Your task to perform on an android device: uninstall "Adobe Express: Graphic Design" Image 0: 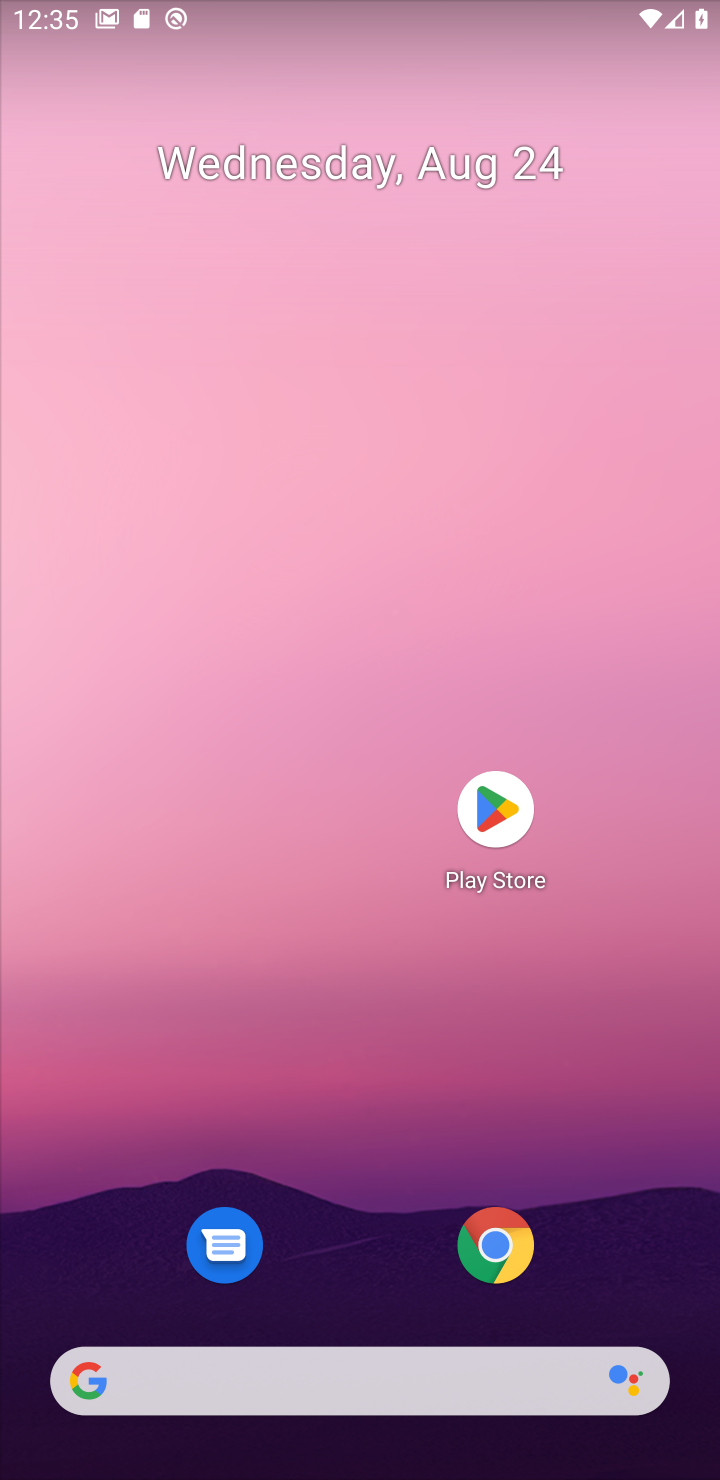
Step 0: click (496, 812)
Your task to perform on an android device: uninstall "Adobe Express: Graphic Design" Image 1: 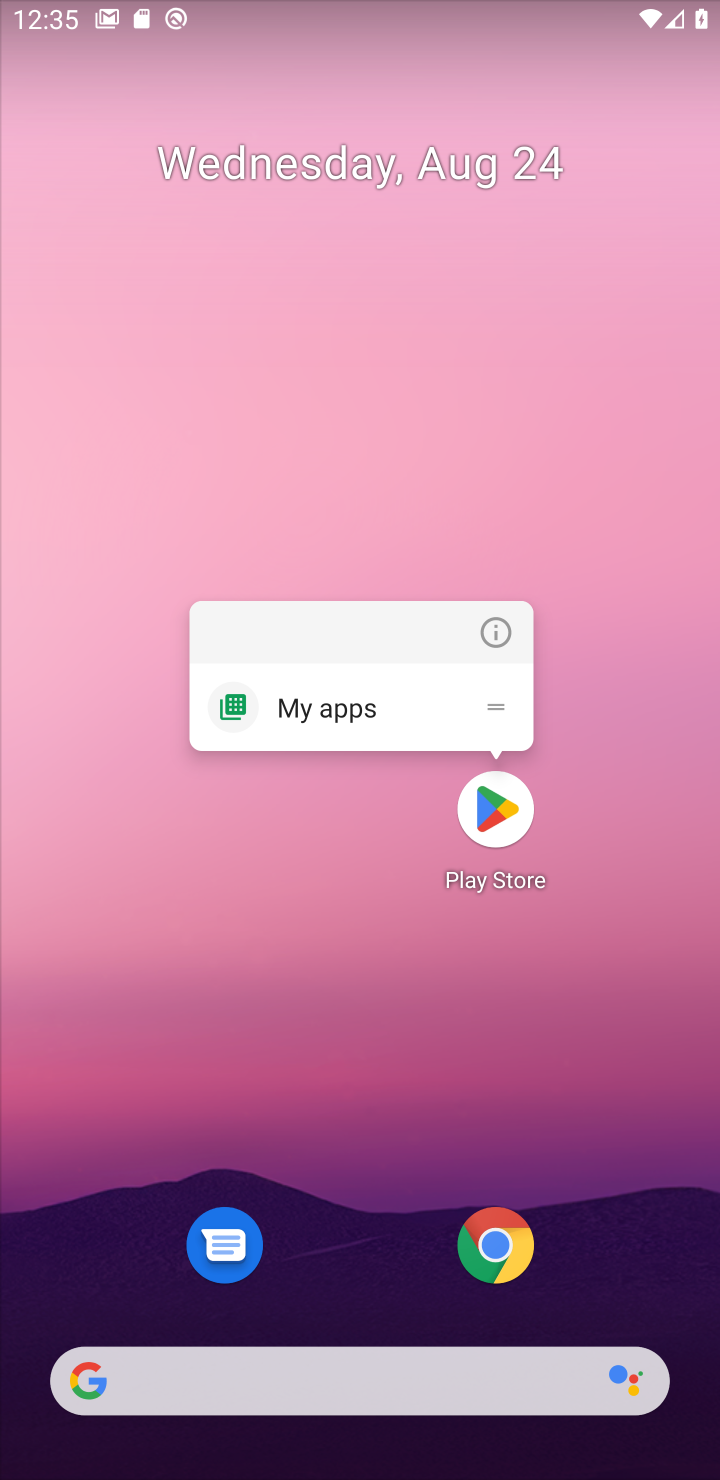
Step 1: click (496, 805)
Your task to perform on an android device: uninstall "Adobe Express: Graphic Design" Image 2: 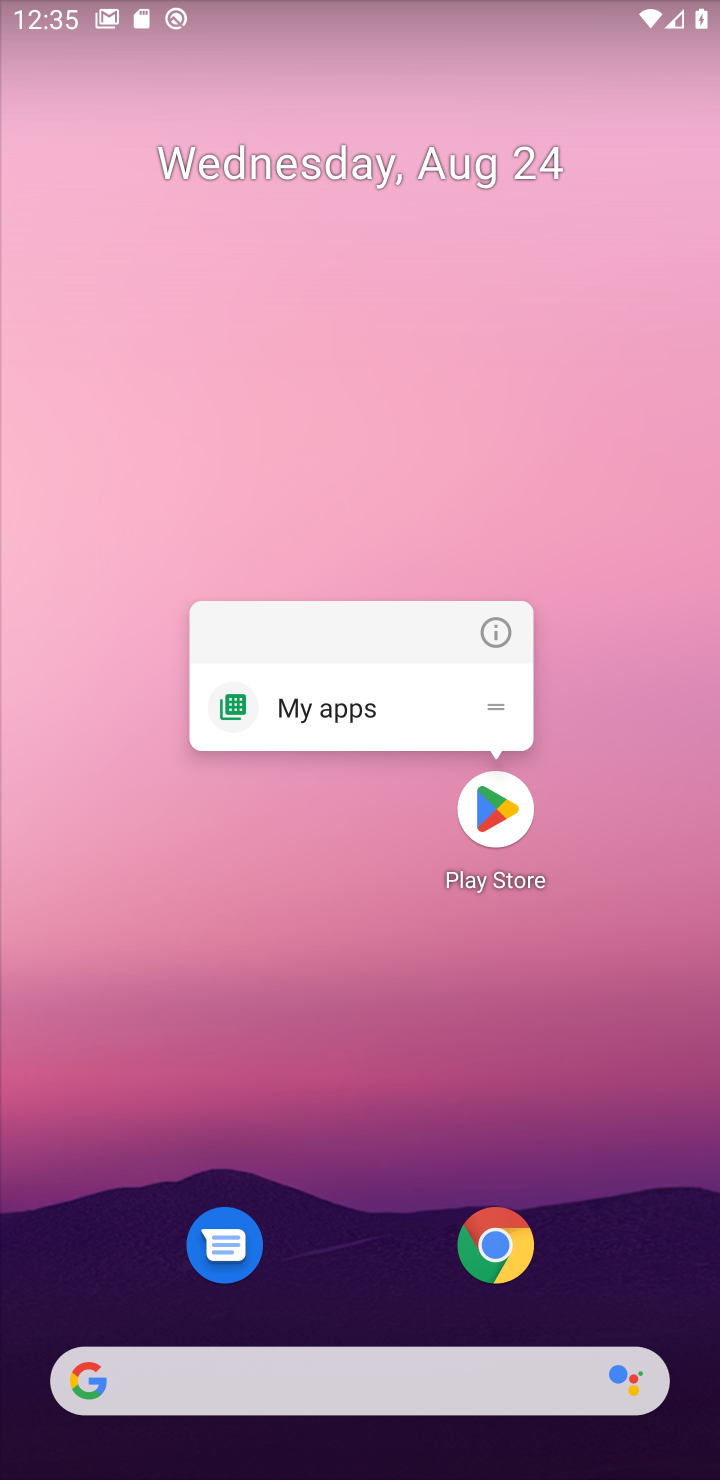
Step 2: click (496, 803)
Your task to perform on an android device: uninstall "Adobe Express: Graphic Design" Image 3: 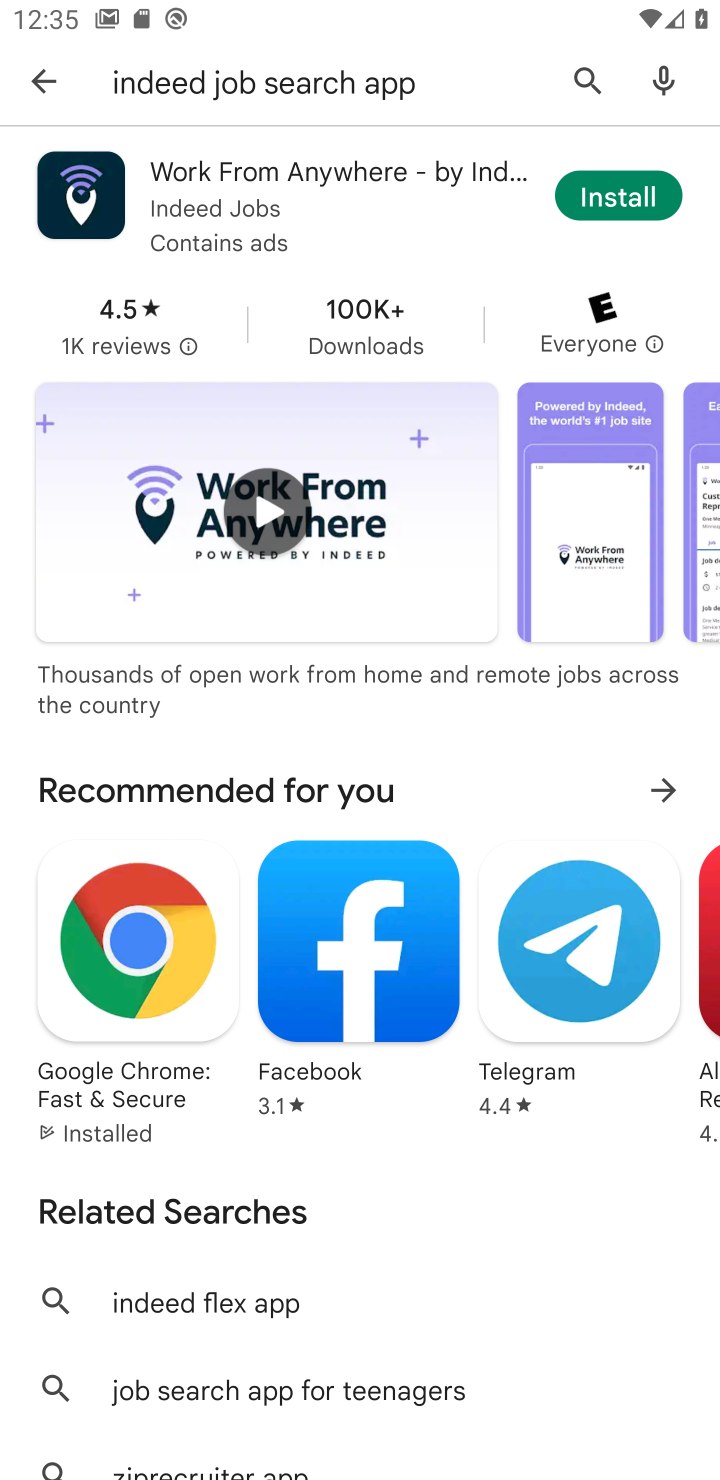
Step 3: click (576, 71)
Your task to perform on an android device: uninstall "Adobe Express: Graphic Design" Image 4: 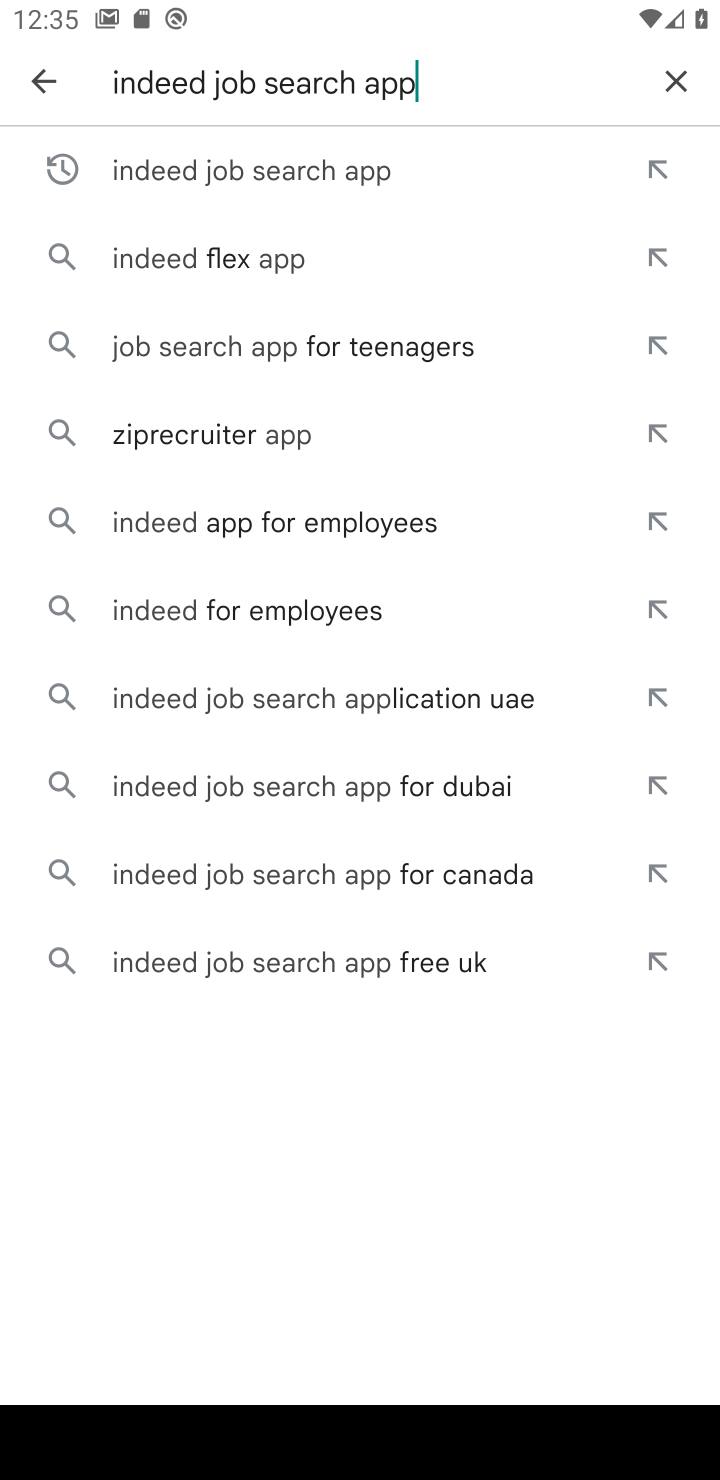
Step 4: click (675, 72)
Your task to perform on an android device: uninstall "Adobe Express: Graphic Design" Image 5: 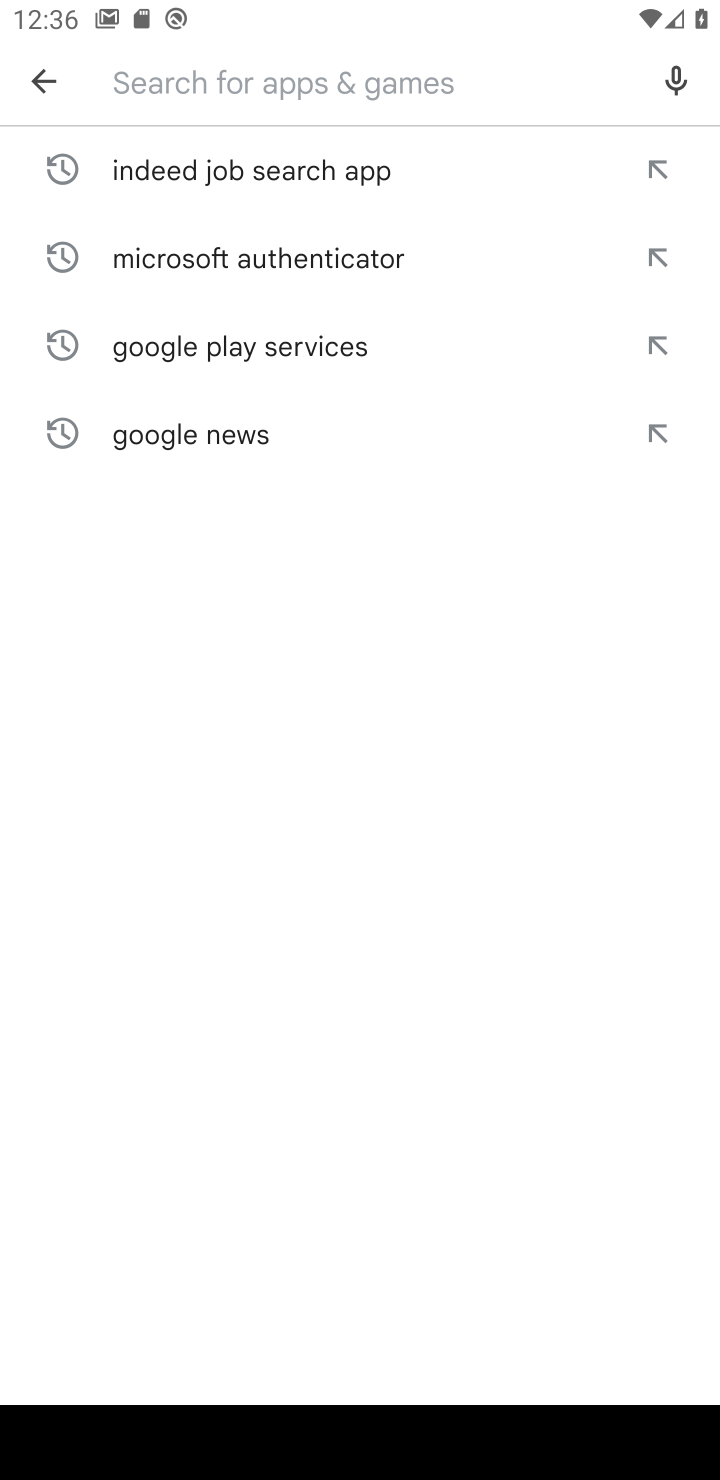
Step 5: type "Adobe Express: Graphic Design"
Your task to perform on an android device: uninstall "Adobe Express: Graphic Design" Image 6: 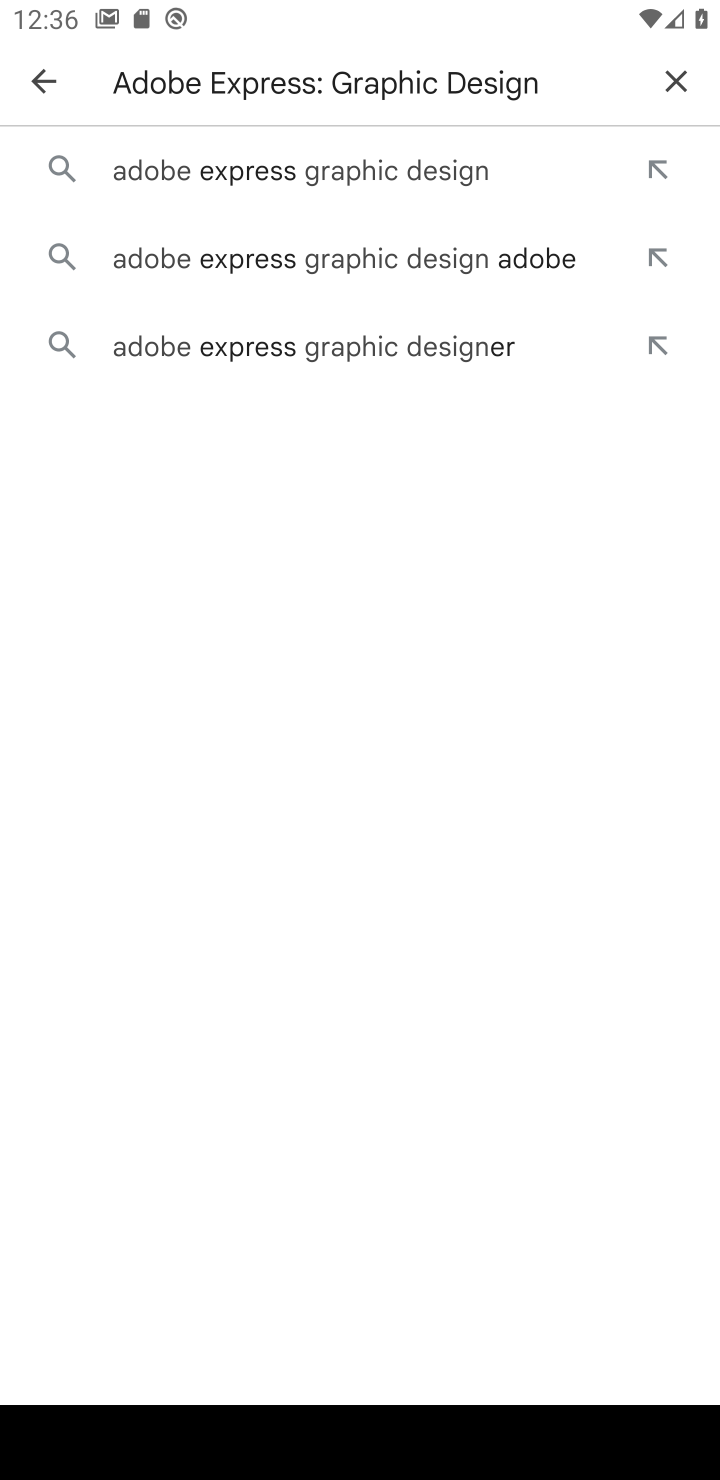
Step 6: click (419, 176)
Your task to perform on an android device: uninstall "Adobe Express: Graphic Design" Image 7: 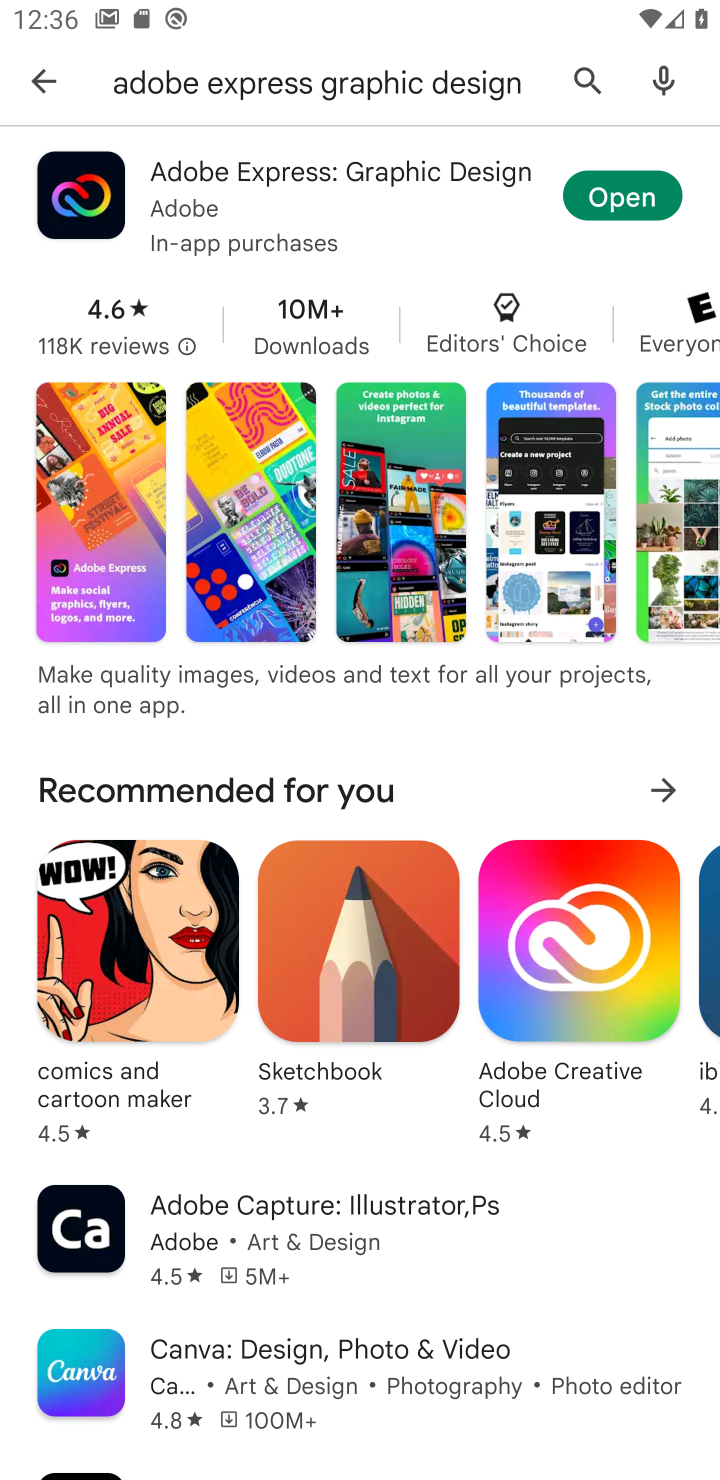
Step 7: click (189, 169)
Your task to perform on an android device: uninstall "Adobe Express: Graphic Design" Image 8: 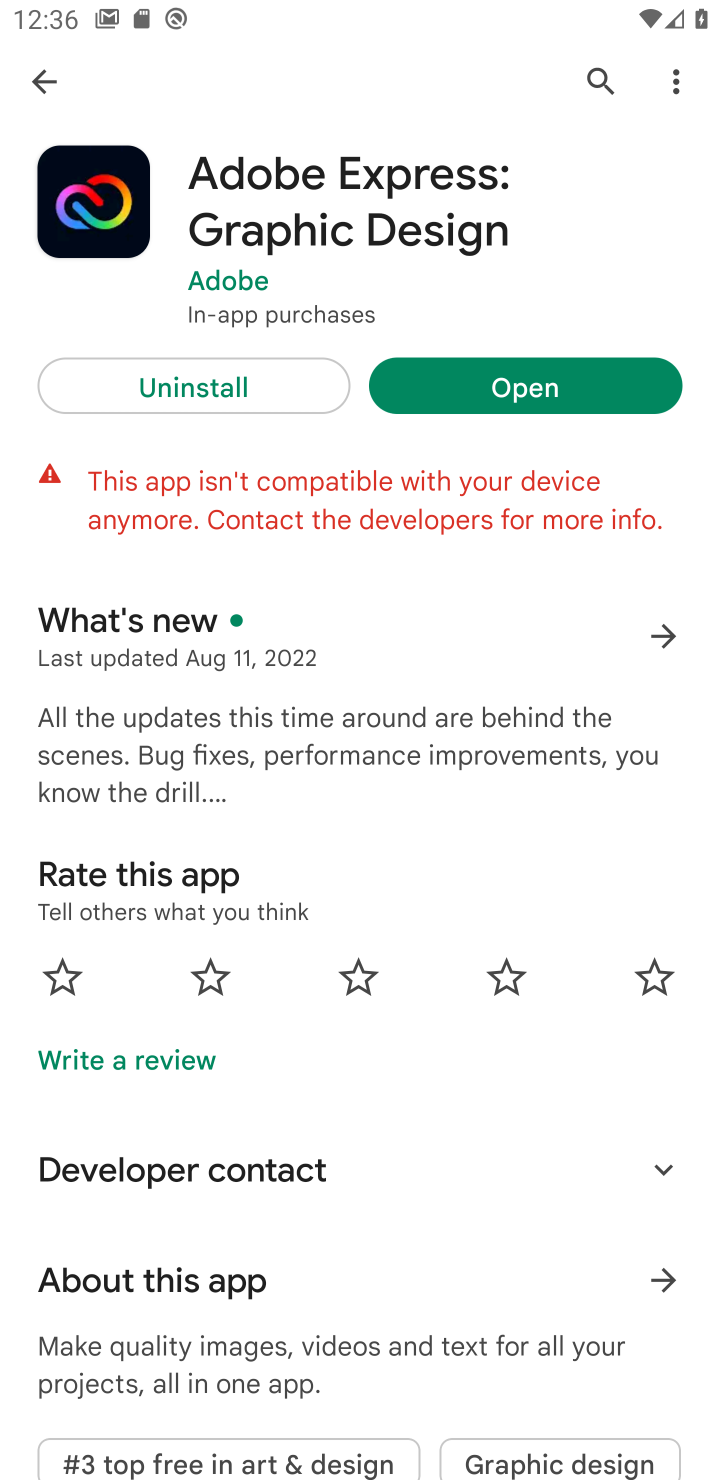
Step 8: click (211, 378)
Your task to perform on an android device: uninstall "Adobe Express: Graphic Design" Image 9: 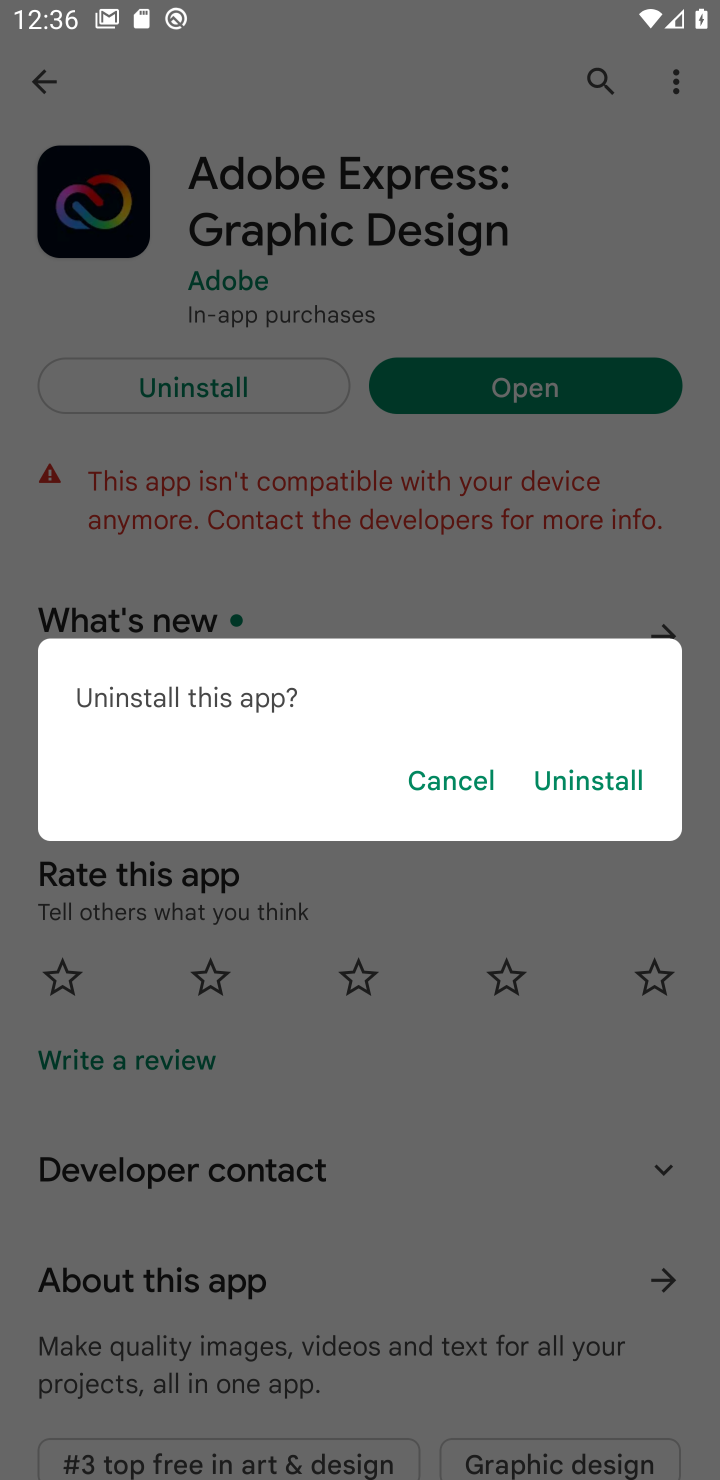
Step 9: click (579, 767)
Your task to perform on an android device: uninstall "Adobe Express: Graphic Design" Image 10: 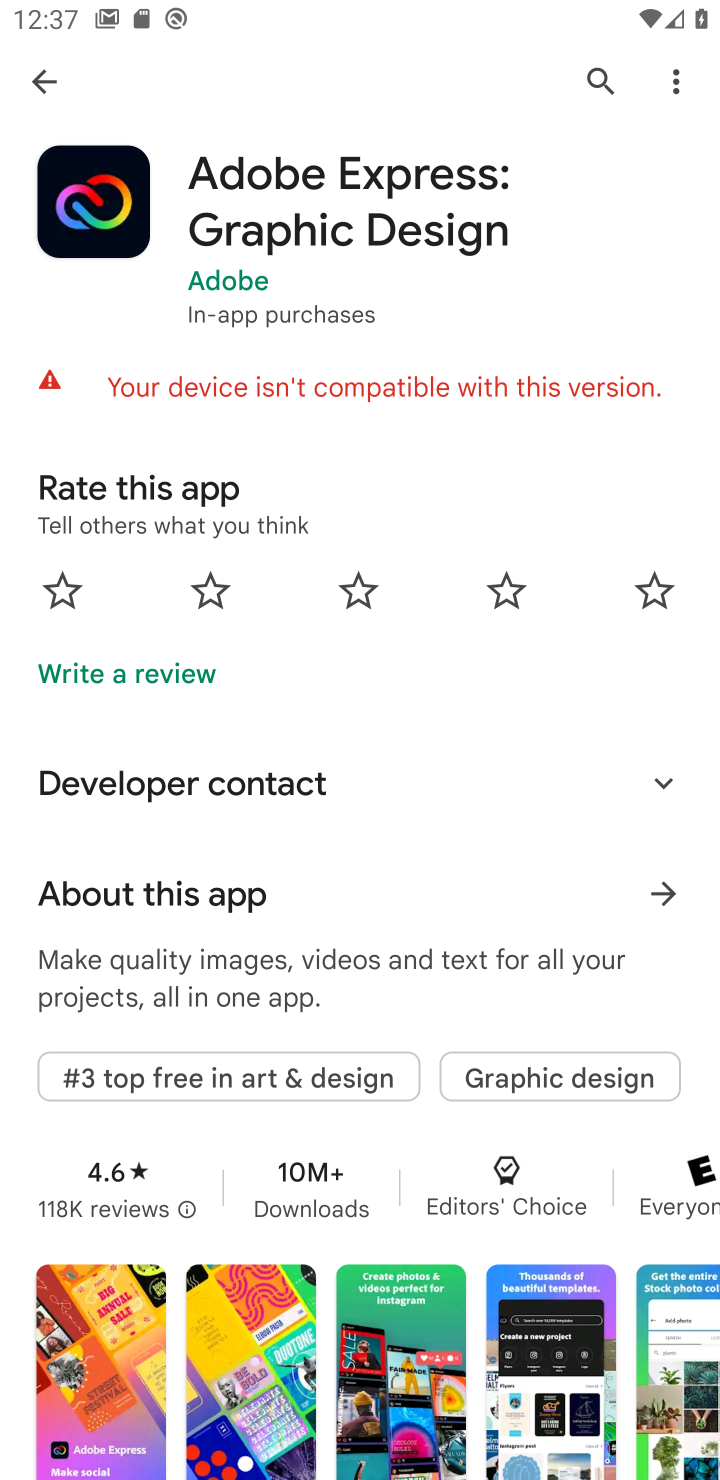
Step 10: task complete